Your task to perform on an android device: Open my contact list Image 0: 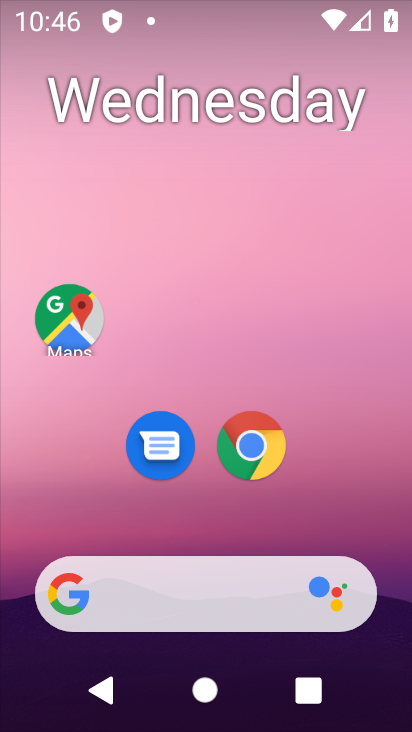
Step 0: drag from (305, 499) to (299, 81)
Your task to perform on an android device: Open my contact list Image 1: 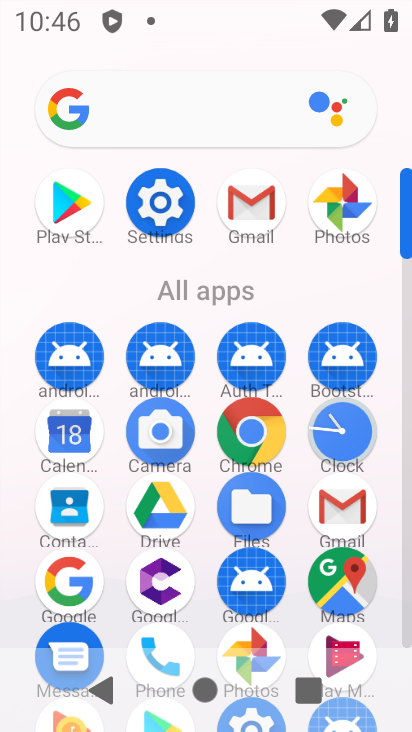
Step 1: click (154, 637)
Your task to perform on an android device: Open my contact list Image 2: 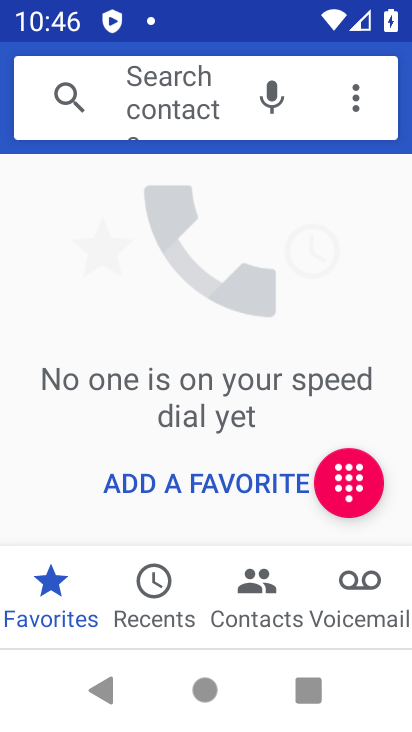
Step 2: click (257, 615)
Your task to perform on an android device: Open my contact list Image 3: 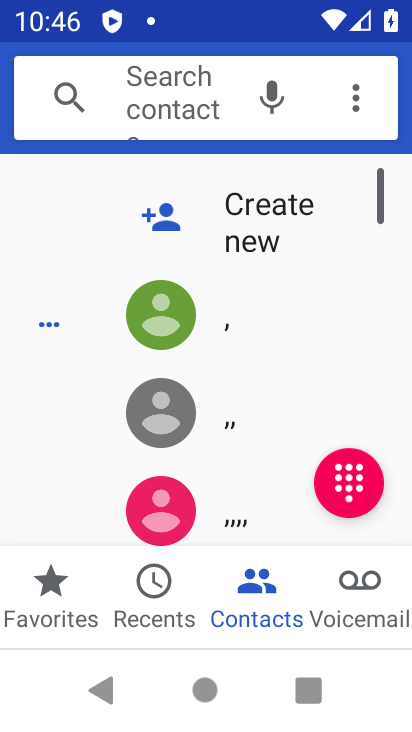
Step 3: task complete